Your task to perform on an android device: Go to ESPN.com Image 0: 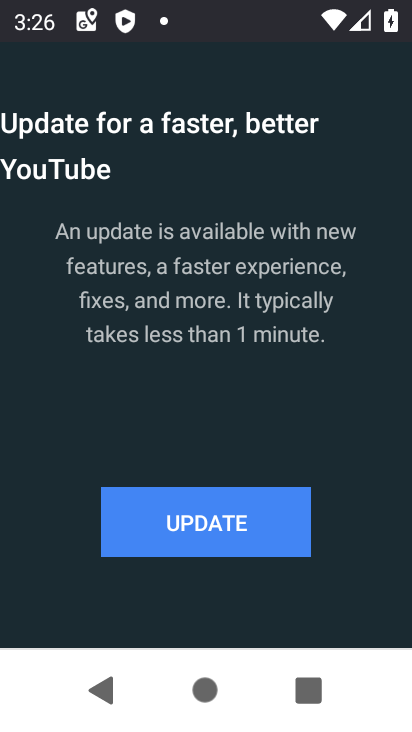
Step 0: click (179, 519)
Your task to perform on an android device: Go to ESPN.com Image 1: 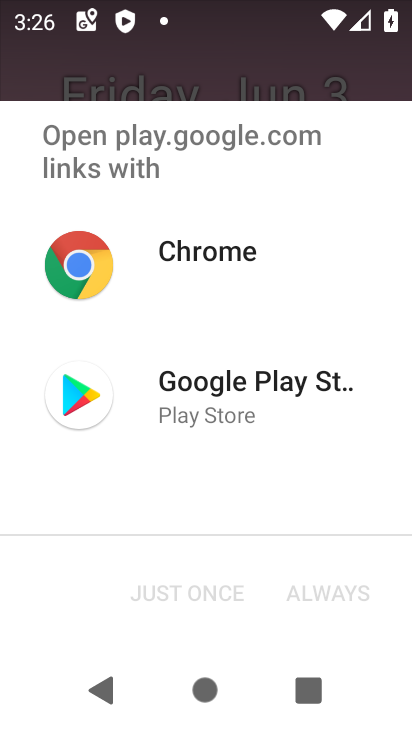
Step 1: task complete